Your task to perform on an android device: Show me the alarms in the clock app Image 0: 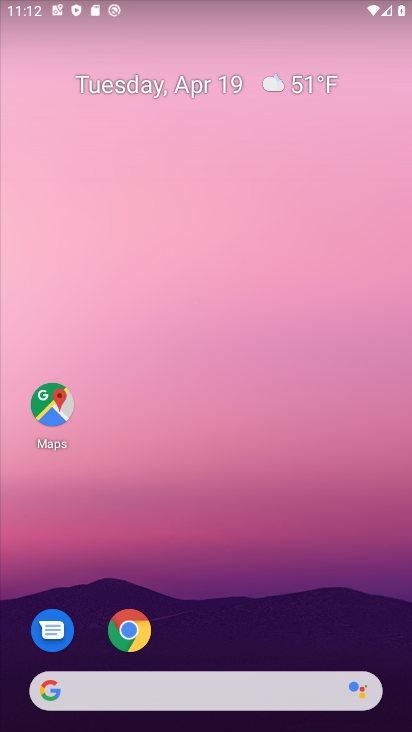
Step 0: drag from (277, 419) to (283, 253)
Your task to perform on an android device: Show me the alarms in the clock app Image 1: 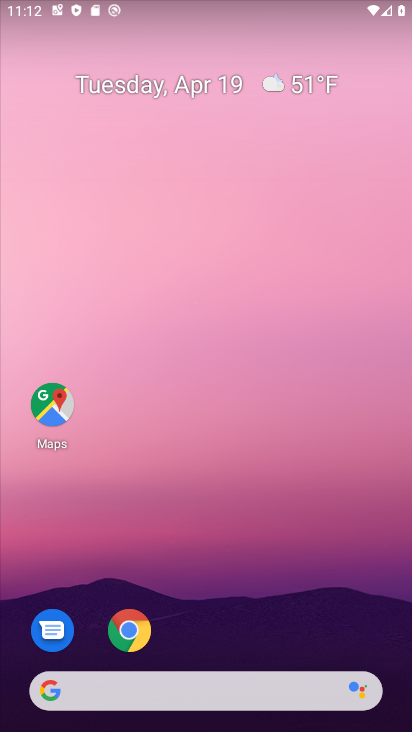
Step 1: drag from (286, 589) to (318, 229)
Your task to perform on an android device: Show me the alarms in the clock app Image 2: 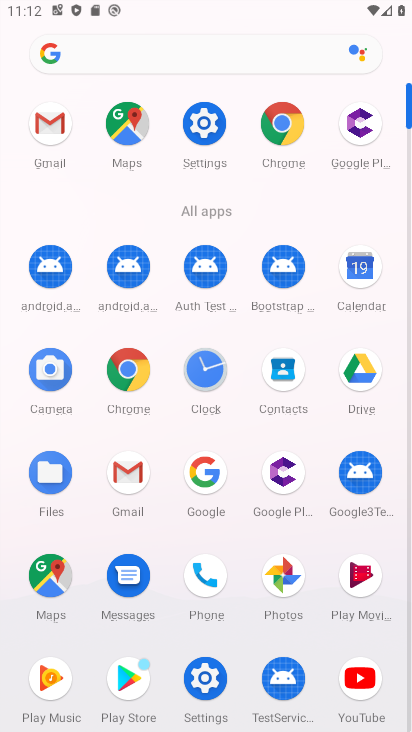
Step 2: click (203, 380)
Your task to perform on an android device: Show me the alarms in the clock app Image 3: 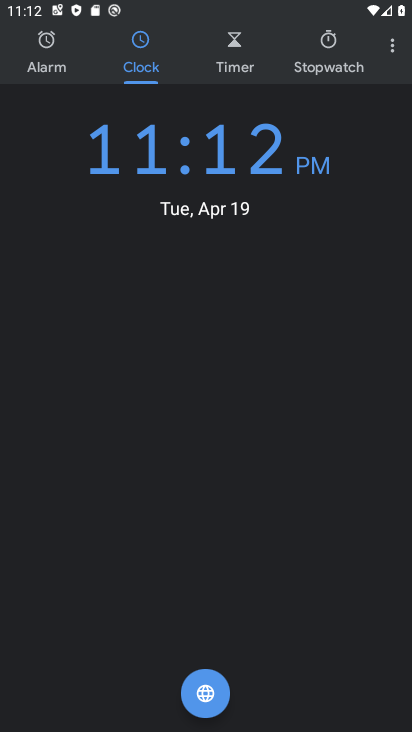
Step 3: click (61, 72)
Your task to perform on an android device: Show me the alarms in the clock app Image 4: 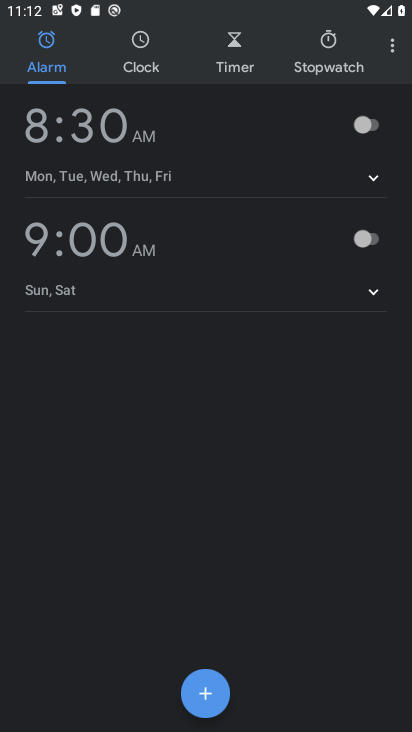
Step 4: task complete